Your task to perform on an android device: Open Google Maps Image 0: 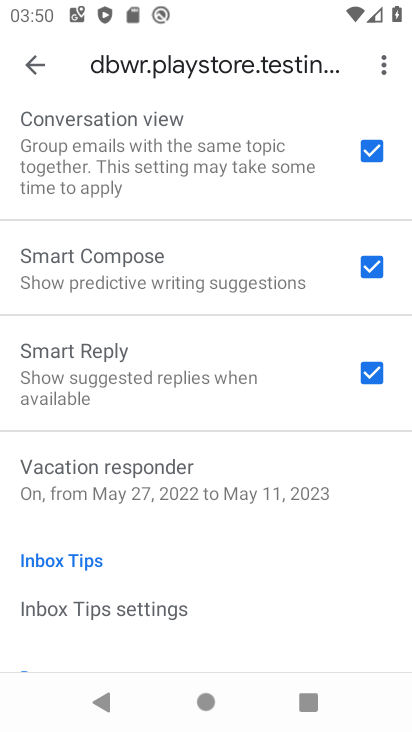
Step 0: press home button
Your task to perform on an android device: Open Google Maps Image 1: 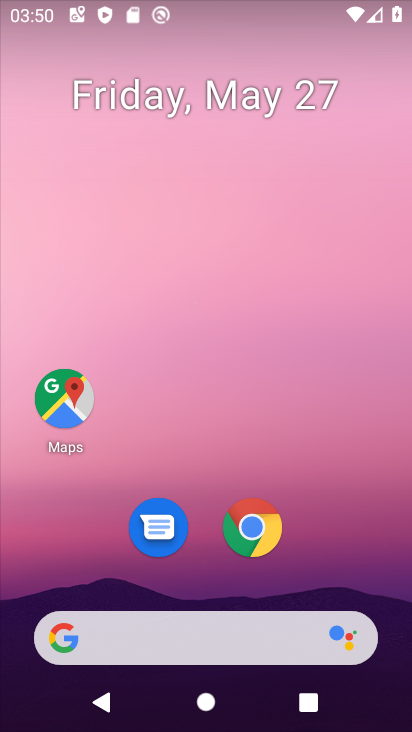
Step 1: drag from (331, 562) to (310, 174)
Your task to perform on an android device: Open Google Maps Image 2: 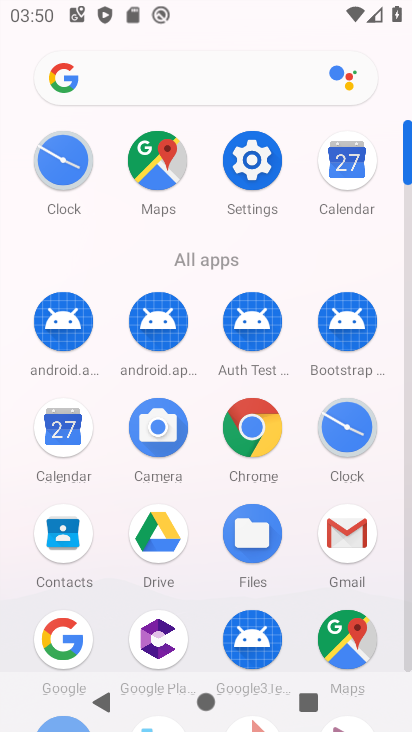
Step 2: click (168, 182)
Your task to perform on an android device: Open Google Maps Image 3: 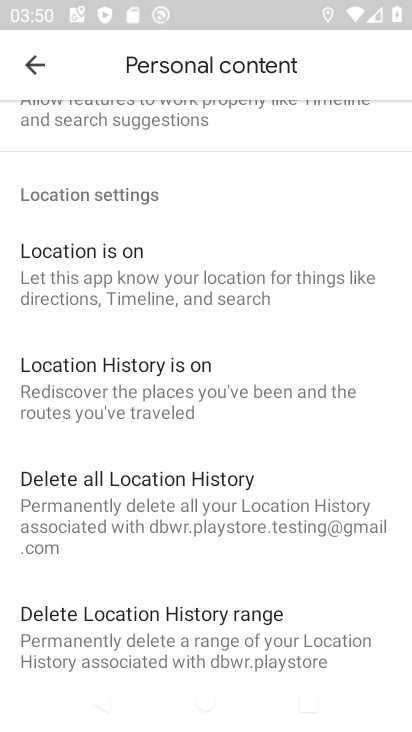
Step 3: task complete